Your task to perform on an android device: Open the web browser Image 0: 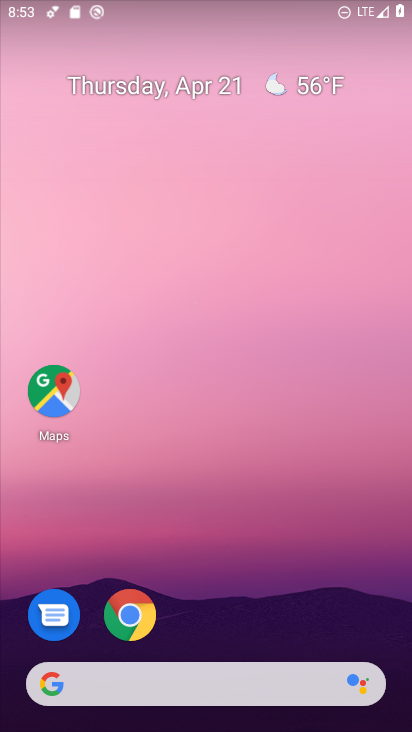
Step 0: drag from (269, 295) to (365, 15)
Your task to perform on an android device: Open the web browser Image 1: 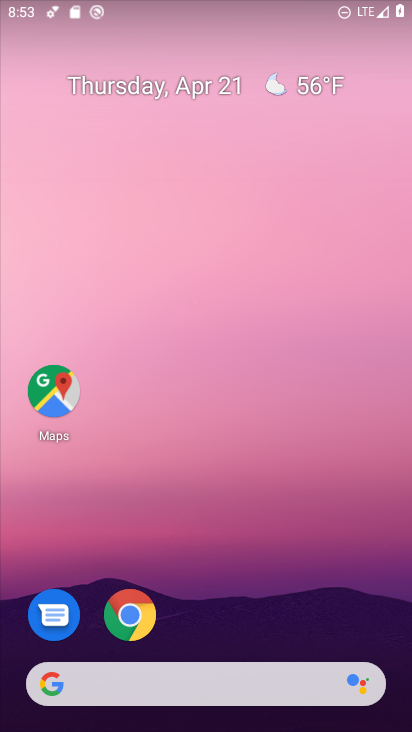
Step 1: drag from (283, 582) to (316, 59)
Your task to perform on an android device: Open the web browser Image 2: 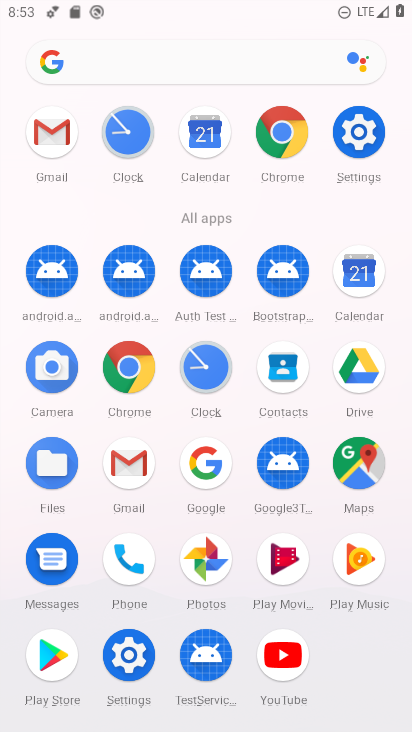
Step 2: click (291, 131)
Your task to perform on an android device: Open the web browser Image 3: 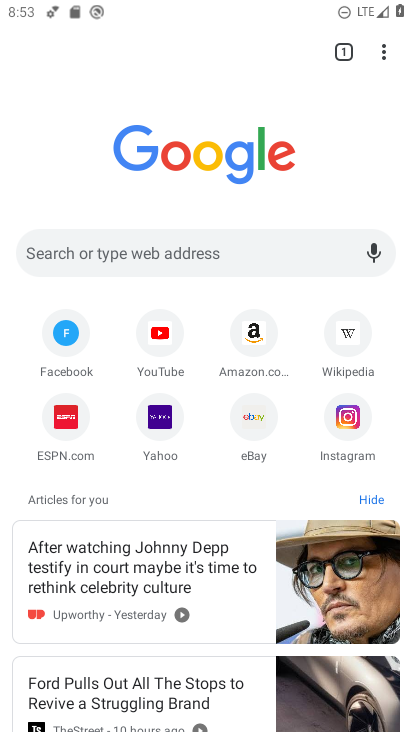
Step 3: task complete